Your task to perform on an android device: turn on the 12-hour format for clock Image 0: 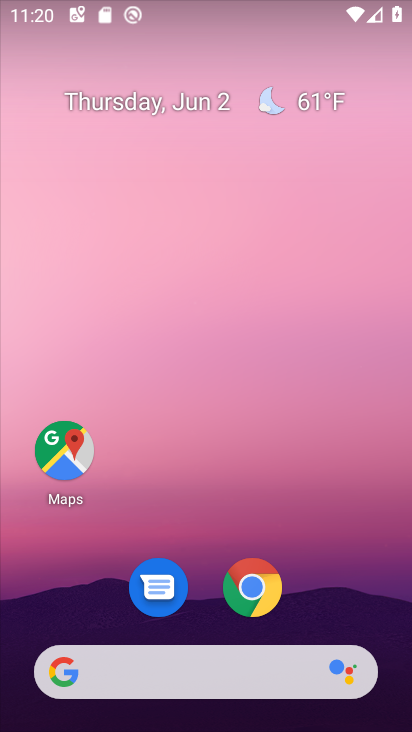
Step 0: drag from (215, 390) to (202, 1)
Your task to perform on an android device: turn on the 12-hour format for clock Image 1: 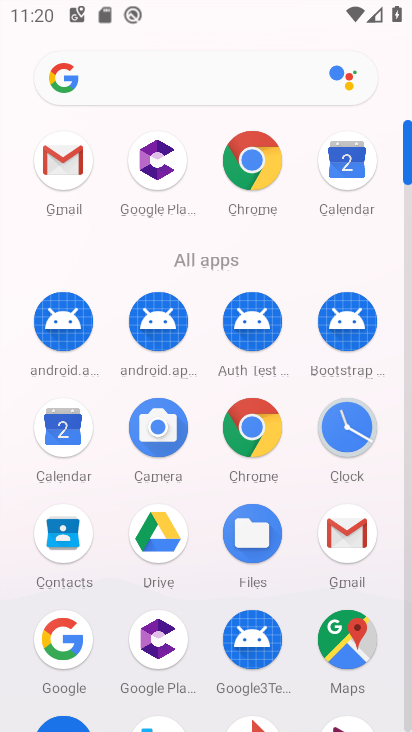
Step 1: click (344, 421)
Your task to perform on an android device: turn on the 12-hour format for clock Image 2: 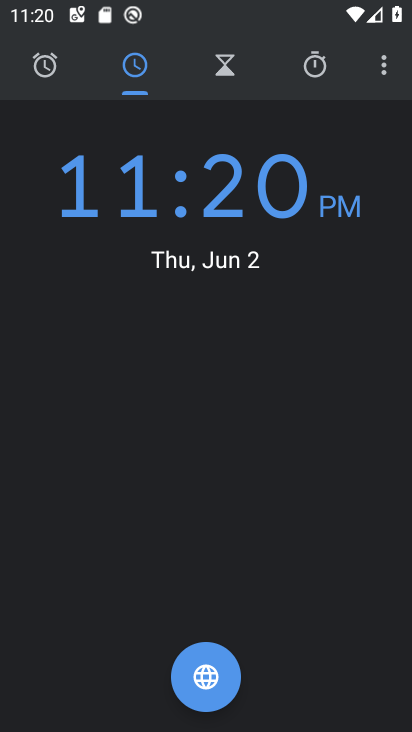
Step 2: click (378, 74)
Your task to perform on an android device: turn on the 12-hour format for clock Image 3: 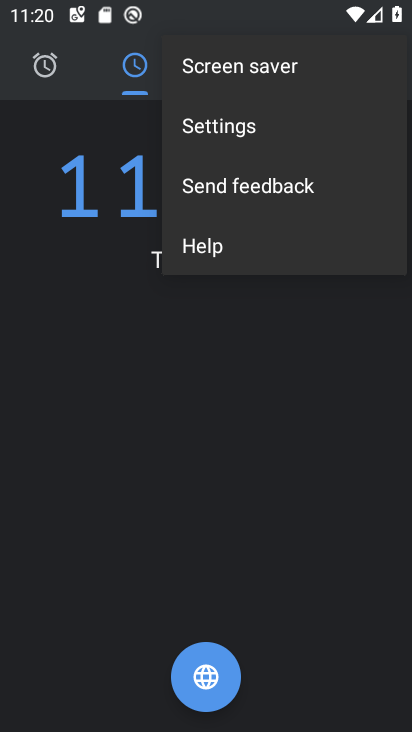
Step 3: click (294, 128)
Your task to perform on an android device: turn on the 12-hour format for clock Image 4: 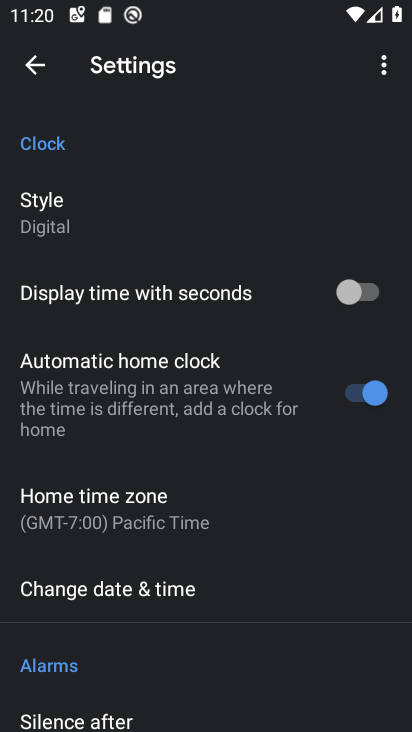
Step 4: drag from (241, 579) to (199, 92)
Your task to perform on an android device: turn on the 12-hour format for clock Image 5: 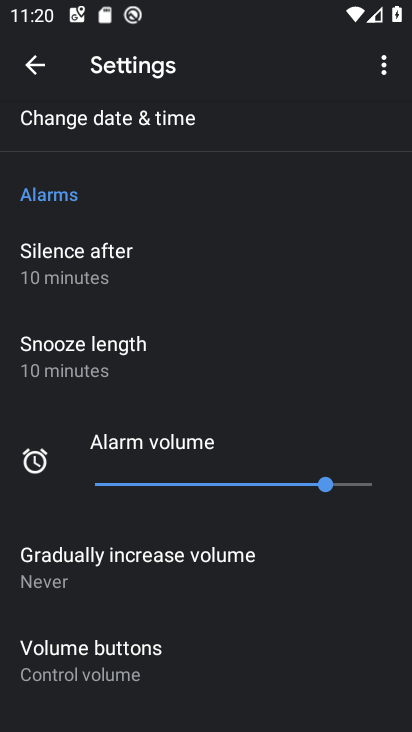
Step 5: click (212, 125)
Your task to perform on an android device: turn on the 12-hour format for clock Image 6: 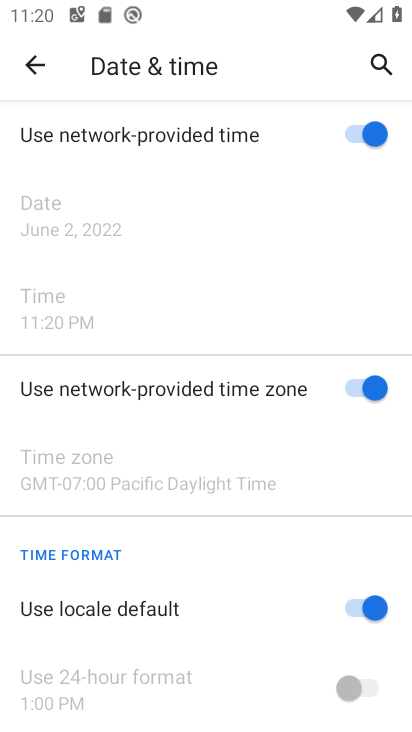
Step 6: task complete